Your task to perform on an android device: What's on my calendar today? Image 0: 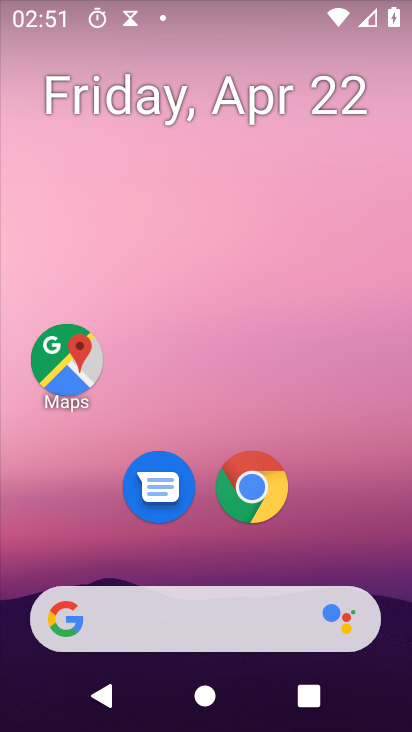
Step 0: drag from (136, 615) to (235, 117)
Your task to perform on an android device: What's on my calendar today? Image 1: 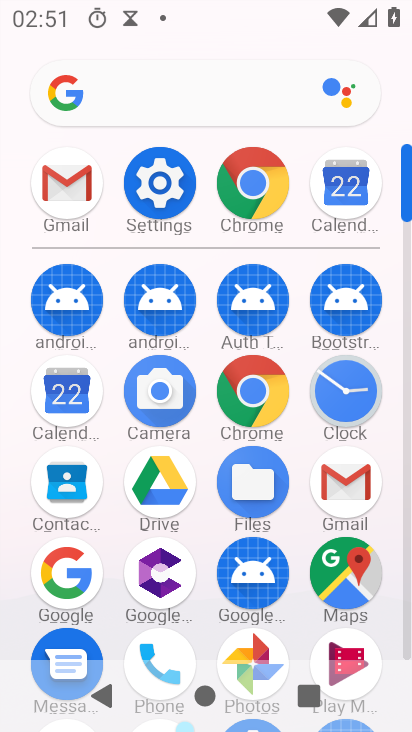
Step 1: click (58, 403)
Your task to perform on an android device: What's on my calendar today? Image 2: 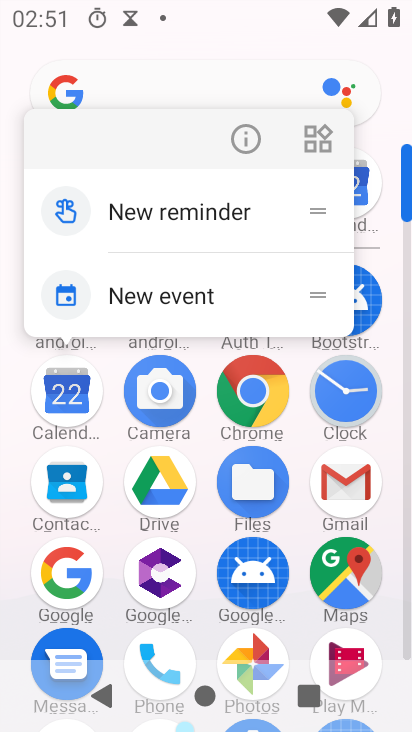
Step 2: click (50, 393)
Your task to perform on an android device: What's on my calendar today? Image 3: 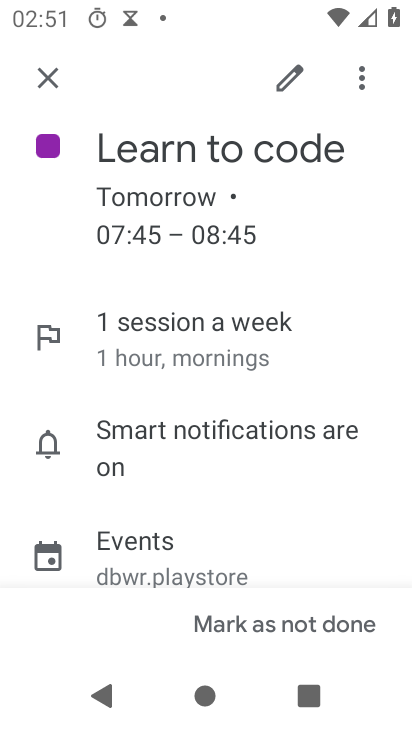
Step 3: click (50, 73)
Your task to perform on an android device: What's on my calendar today? Image 4: 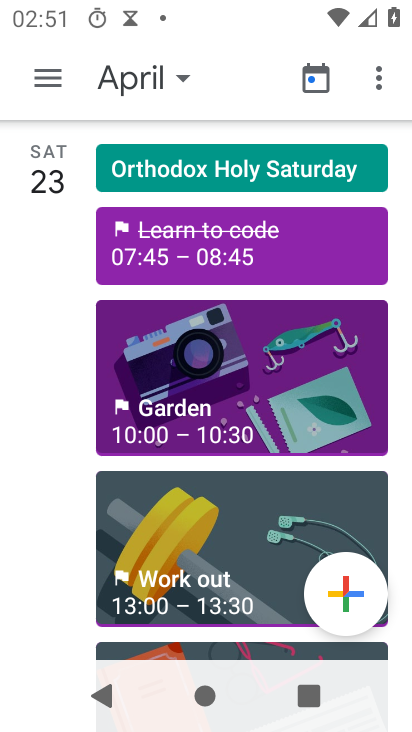
Step 4: click (114, 85)
Your task to perform on an android device: What's on my calendar today? Image 5: 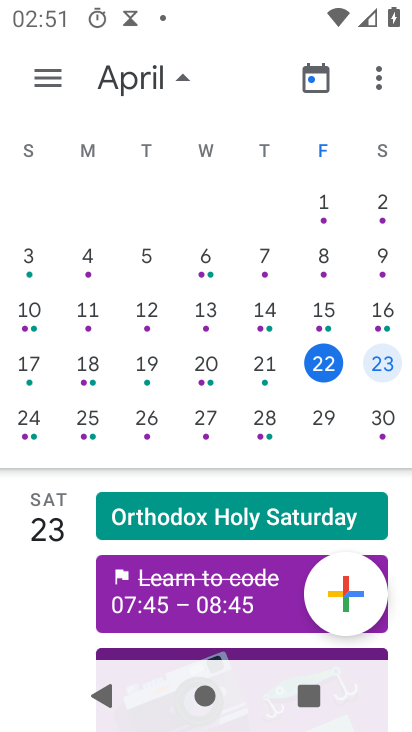
Step 5: click (322, 373)
Your task to perform on an android device: What's on my calendar today? Image 6: 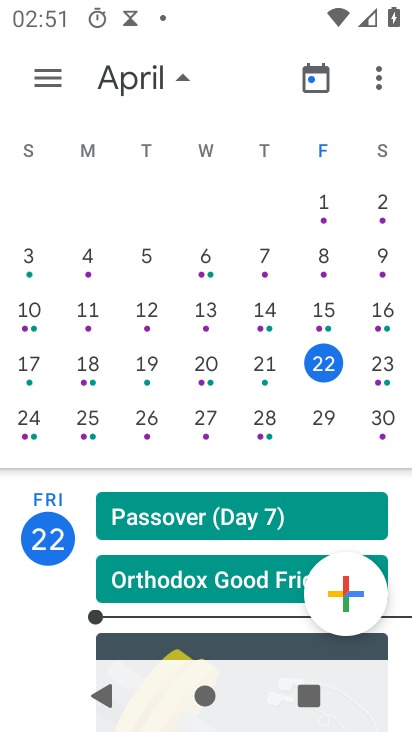
Step 6: click (45, 82)
Your task to perform on an android device: What's on my calendar today? Image 7: 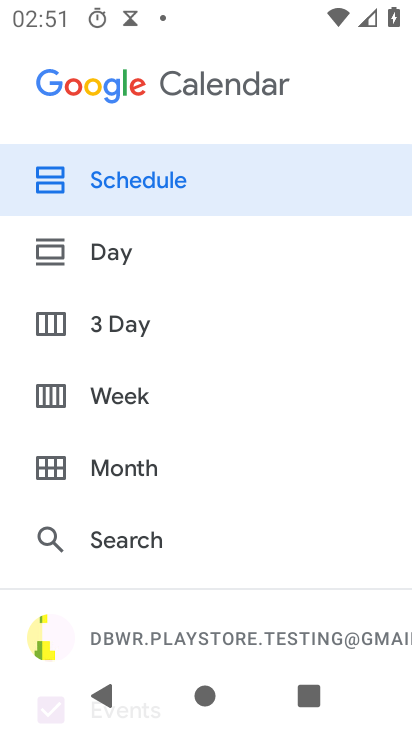
Step 7: click (124, 184)
Your task to perform on an android device: What's on my calendar today? Image 8: 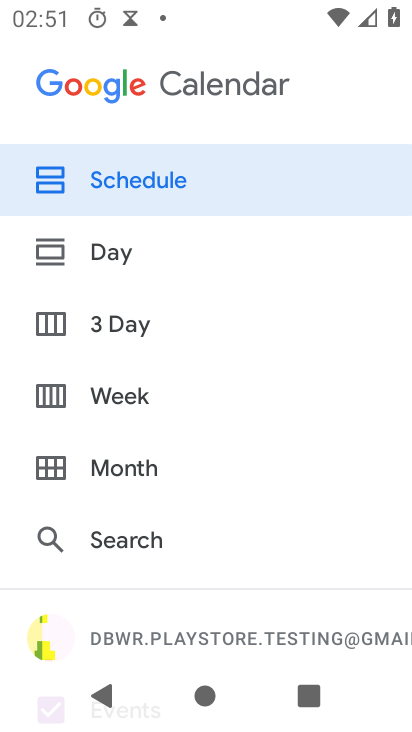
Step 8: click (156, 186)
Your task to perform on an android device: What's on my calendar today? Image 9: 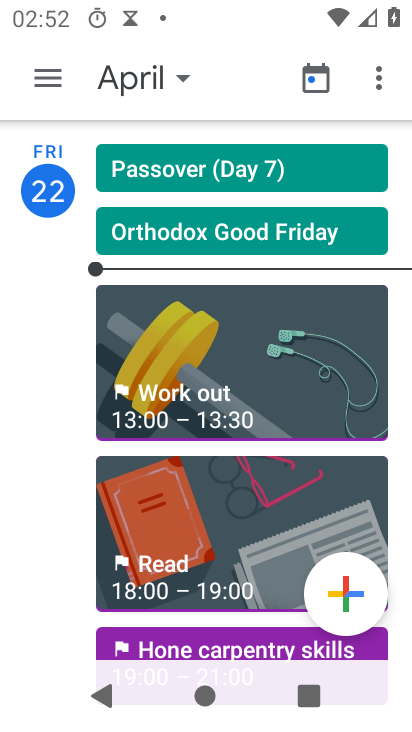
Step 9: drag from (233, 555) to (302, 294)
Your task to perform on an android device: What's on my calendar today? Image 10: 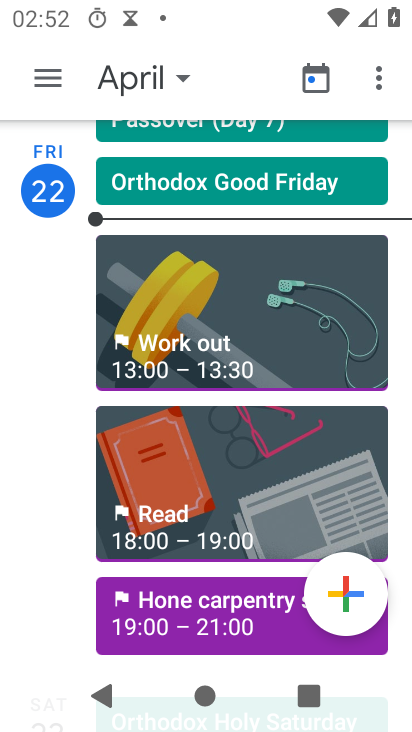
Step 10: click (244, 623)
Your task to perform on an android device: What's on my calendar today? Image 11: 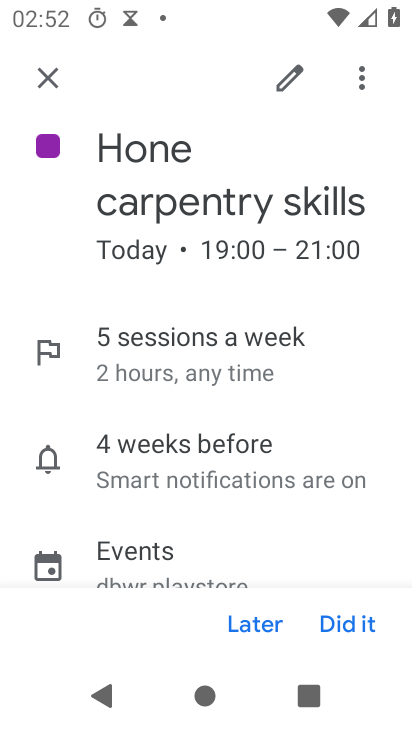
Step 11: task complete